Your task to perform on an android device: Open network settings Image 0: 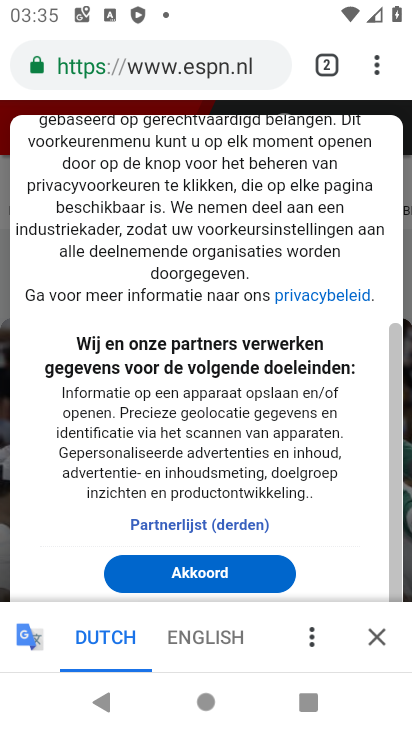
Step 0: press home button
Your task to perform on an android device: Open network settings Image 1: 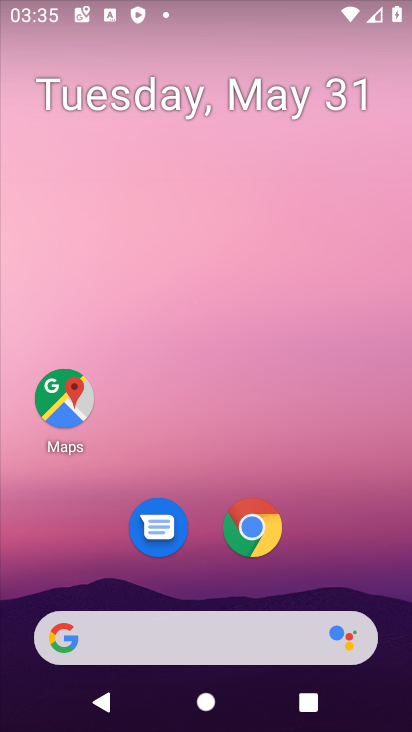
Step 1: drag from (390, 627) to (318, 157)
Your task to perform on an android device: Open network settings Image 2: 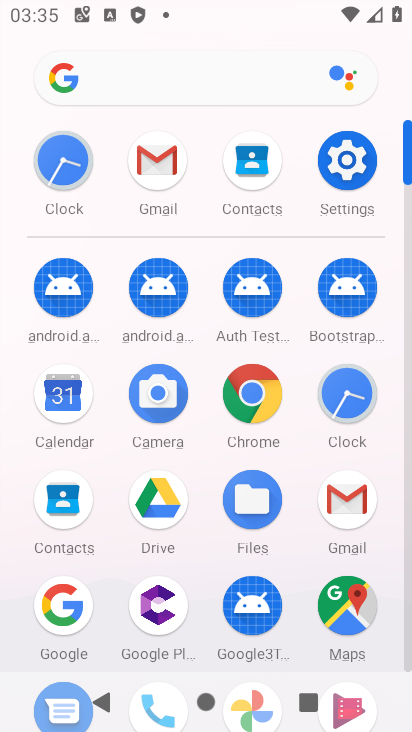
Step 2: click (409, 663)
Your task to perform on an android device: Open network settings Image 3: 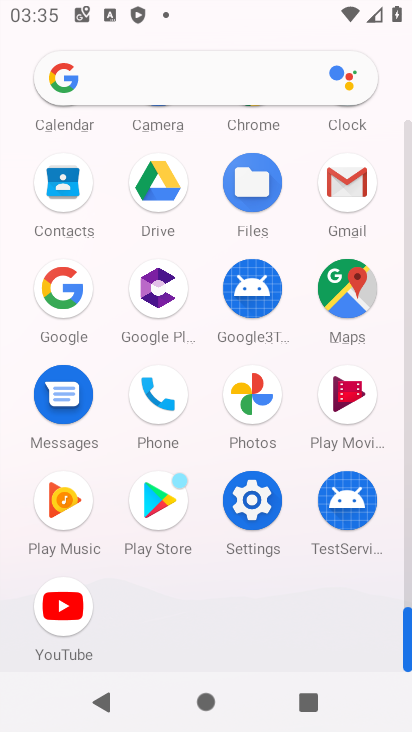
Step 3: click (251, 499)
Your task to perform on an android device: Open network settings Image 4: 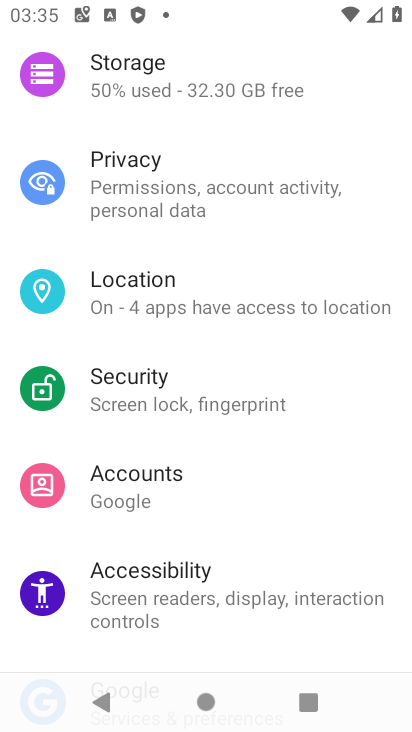
Step 4: drag from (313, 225) to (307, 581)
Your task to perform on an android device: Open network settings Image 5: 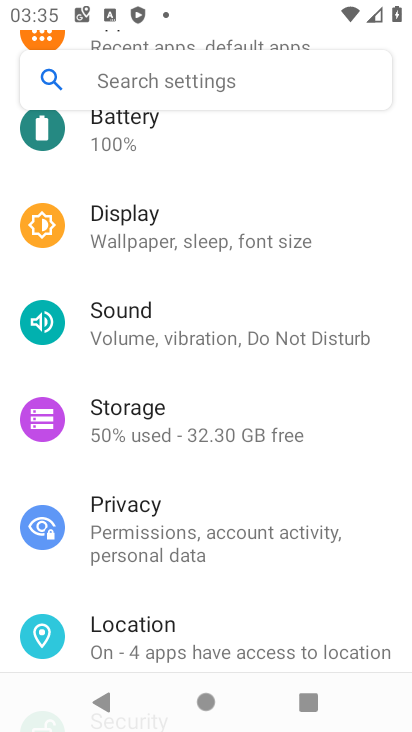
Step 5: drag from (358, 276) to (350, 596)
Your task to perform on an android device: Open network settings Image 6: 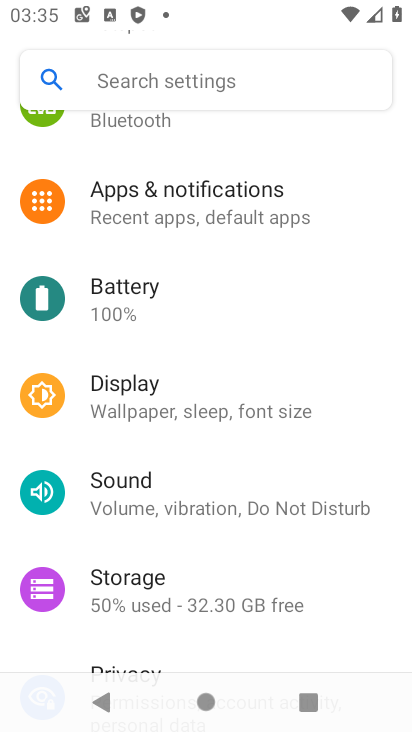
Step 6: drag from (361, 171) to (363, 487)
Your task to perform on an android device: Open network settings Image 7: 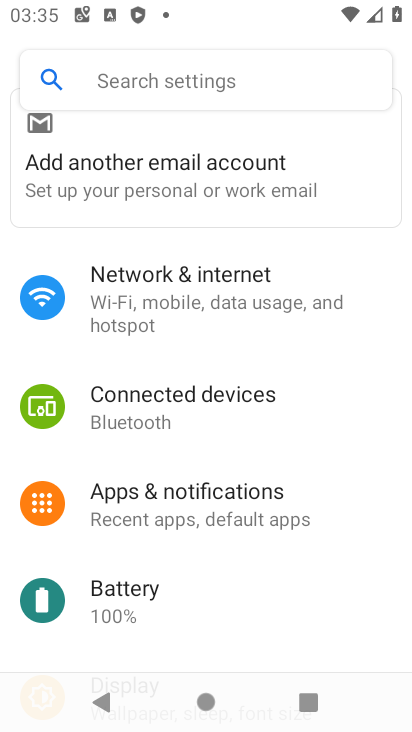
Step 7: click (128, 300)
Your task to perform on an android device: Open network settings Image 8: 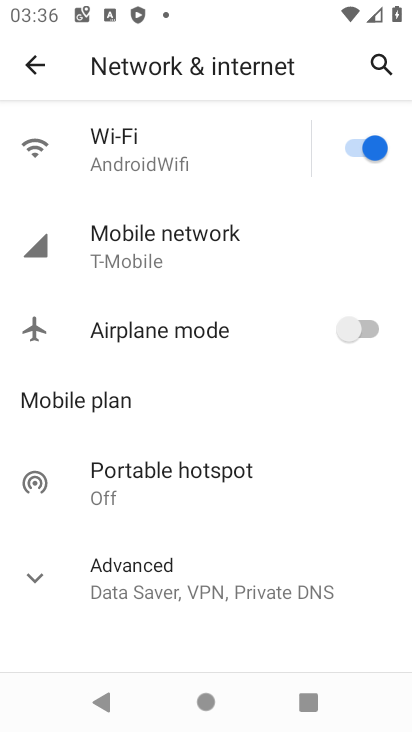
Step 8: click (131, 242)
Your task to perform on an android device: Open network settings Image 9: 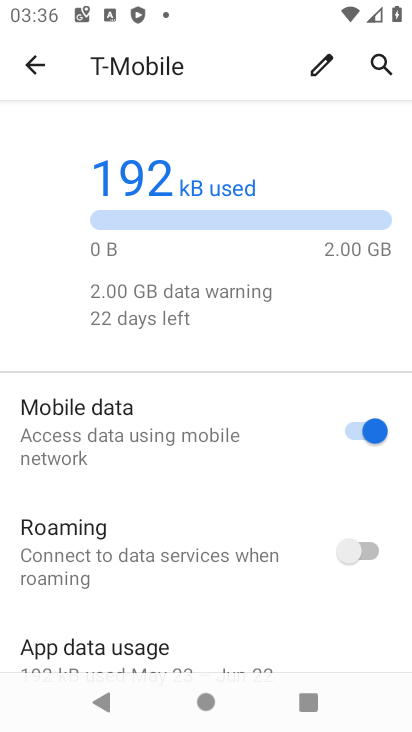
Step 9: task complete